Your task to perform on an android device: install app "Spotify" Image 0: 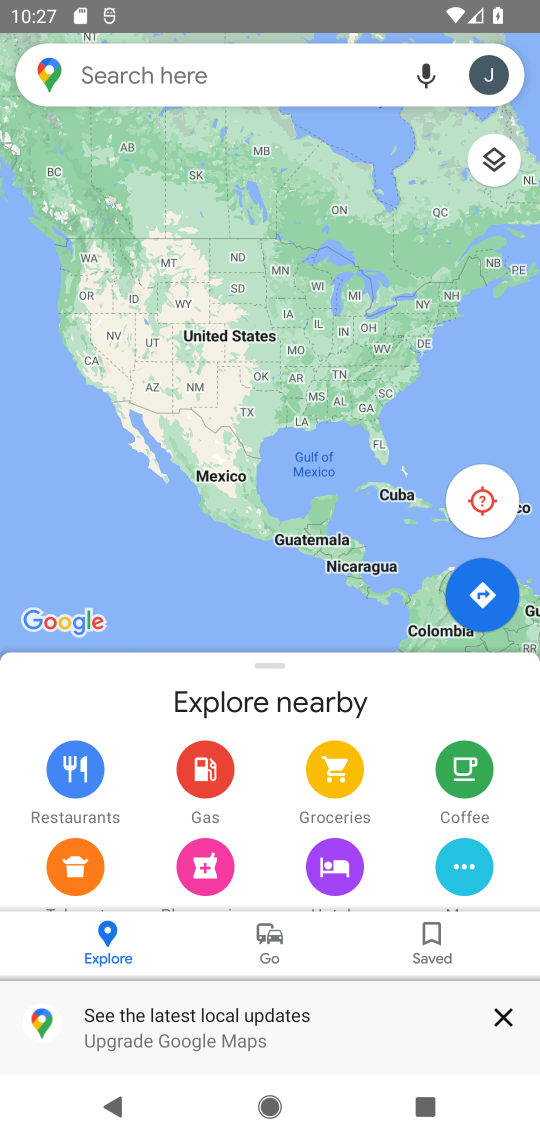
Step 0: press home button
Your task to perform on an android device: install app "Spotify" Image 1: 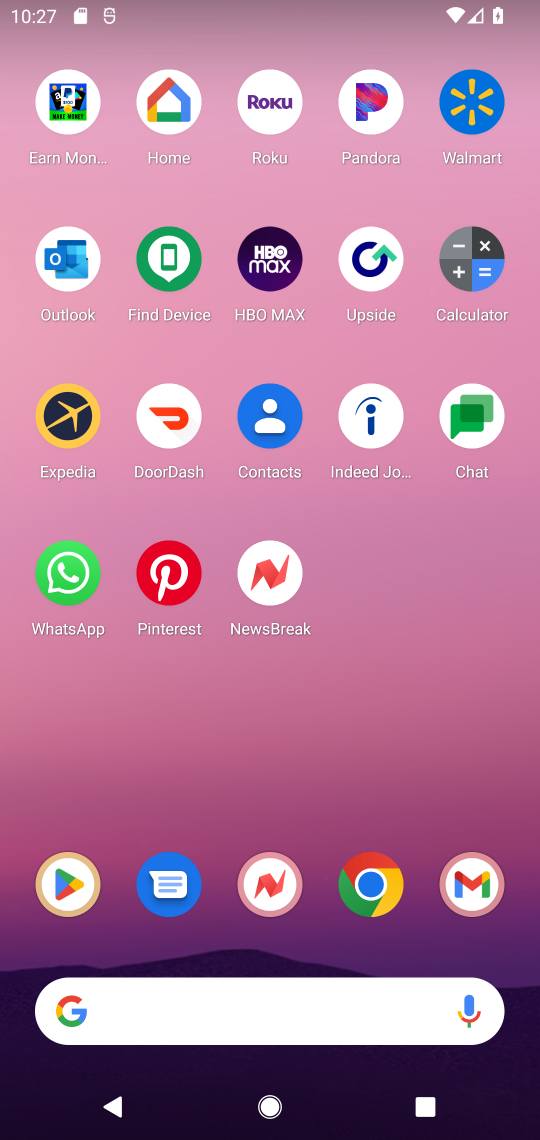
Step 1: click (65, 869)
Your task to perform on an android device: install app "Spotify" Image 2: 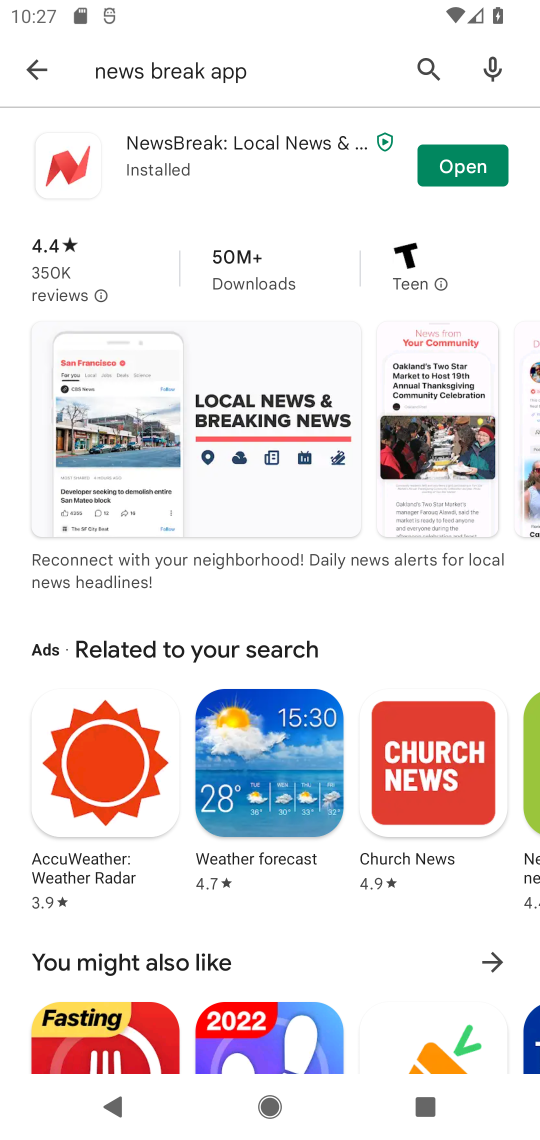
Step 2: click (278, 58)
Your task to perform on an android device: install app "Spotify" Image 3: 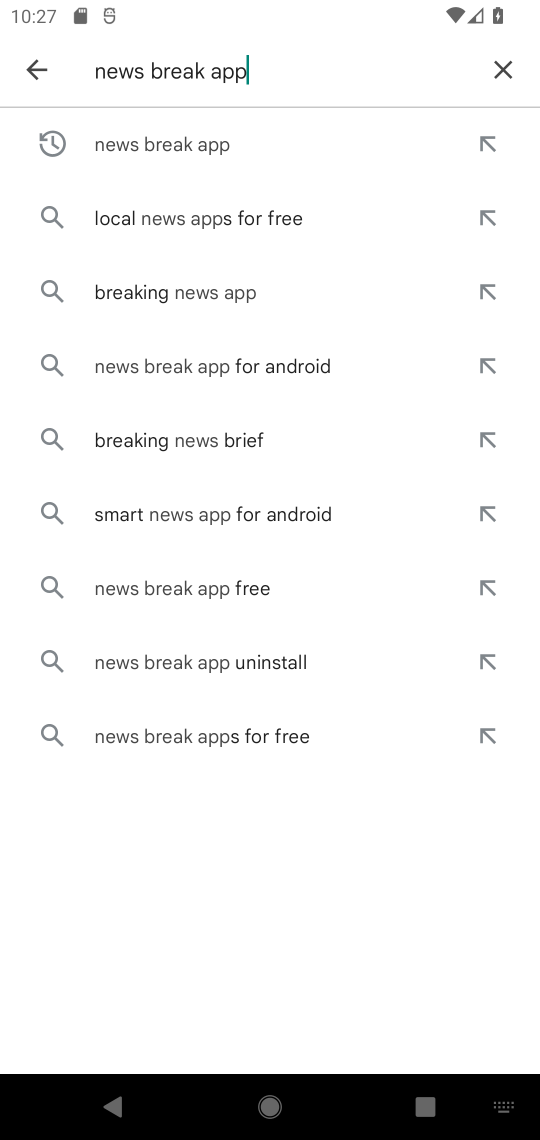
Step 3: click (512, 64)
Your task to perform on an android device: install app "Spotify" Image 4: 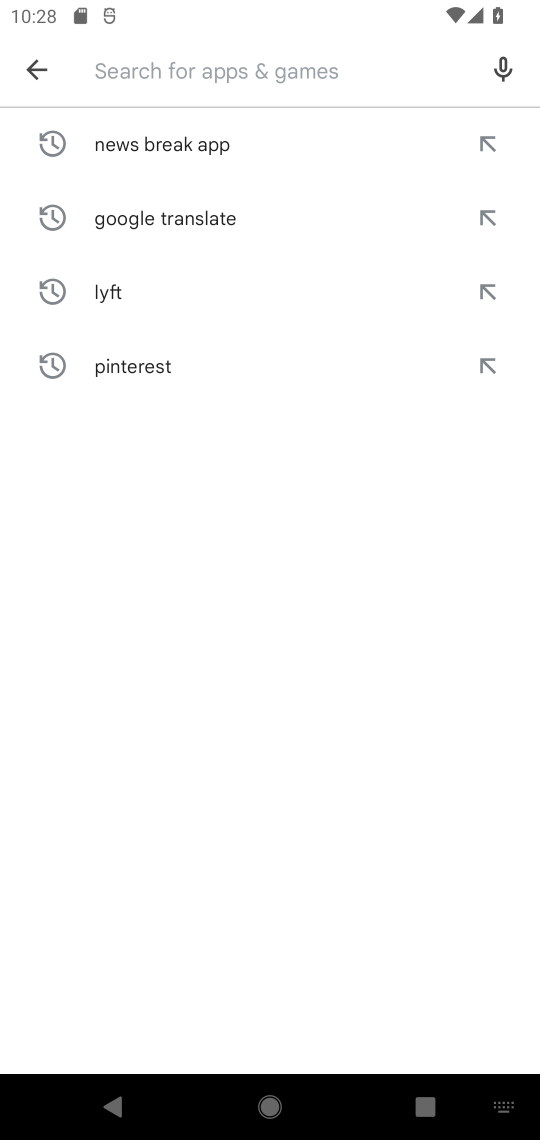
Step 4: type "spotify"
Your task to perform on an android device: install app "Spotify" Image 5: 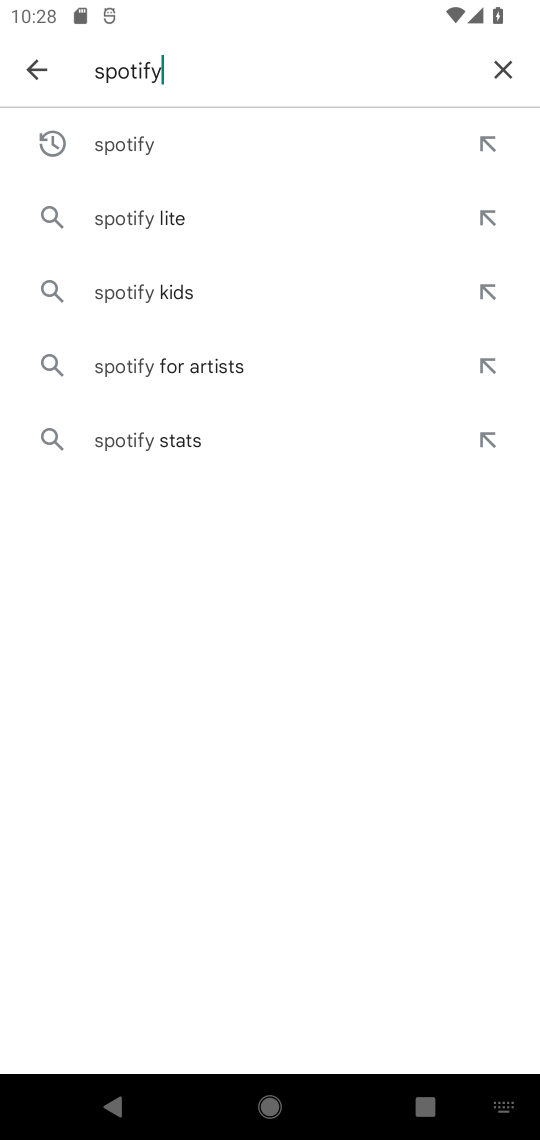
Step 5: click (130, 158)
Your task to perform on an android device: install app "Spotify" Image 6: 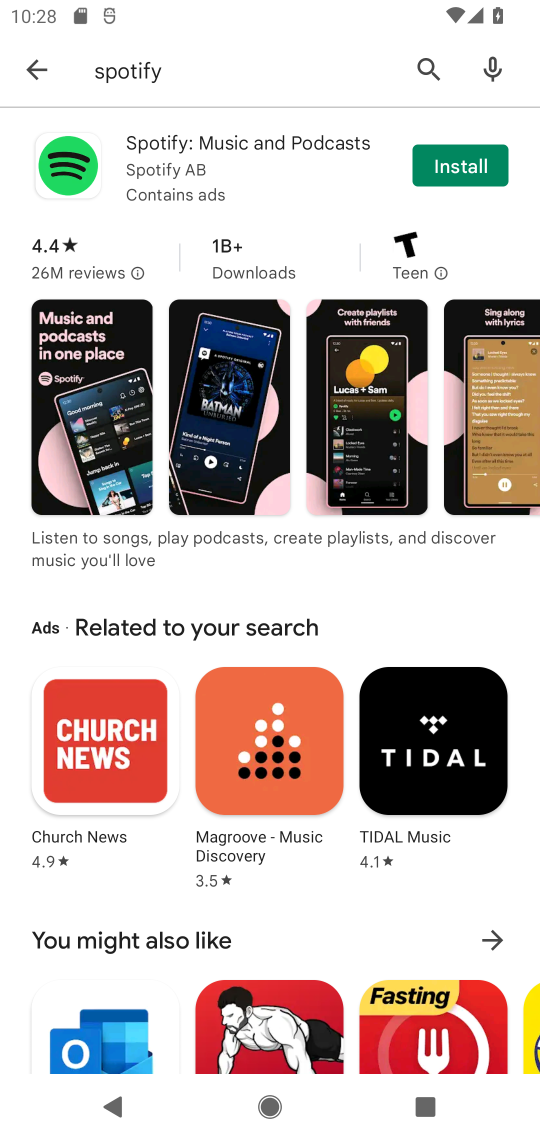
Step 6: click (462, 160)
Your task to perform on an android device: install app "Spotify" Image 7: 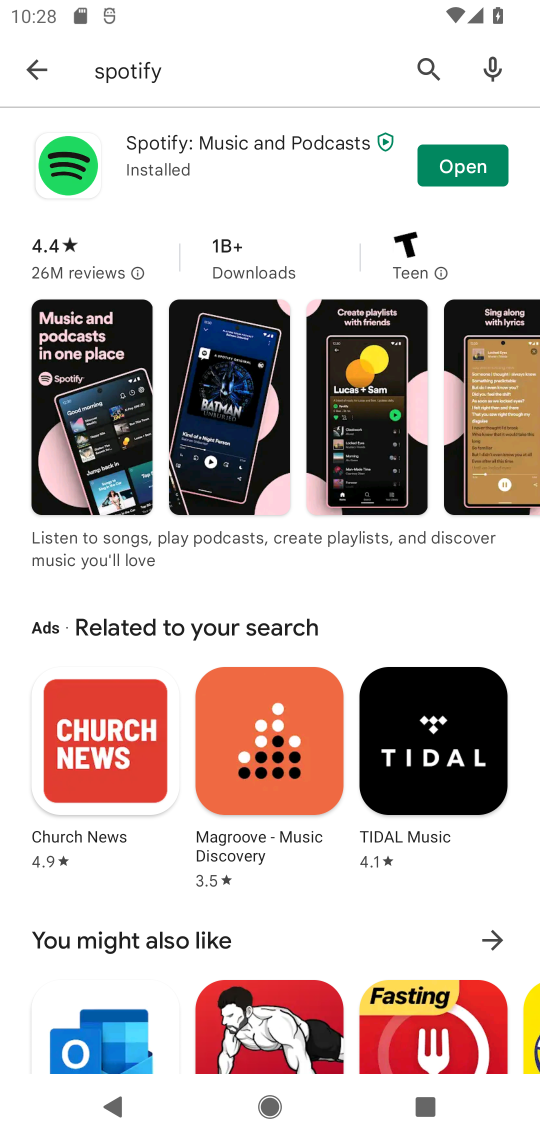
Step 7: task complete